Your task to perform on an android device: add a contact in the contacts app Image 0: 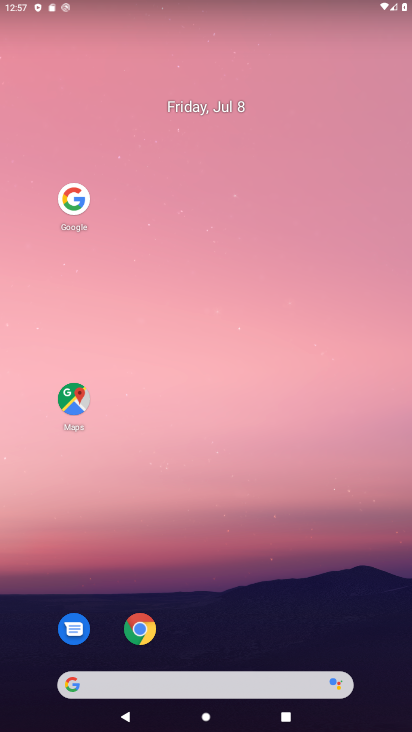
Step 0: click (202, 191)
Your task to perform on an android device: add a contact in the contacts app Image 1: 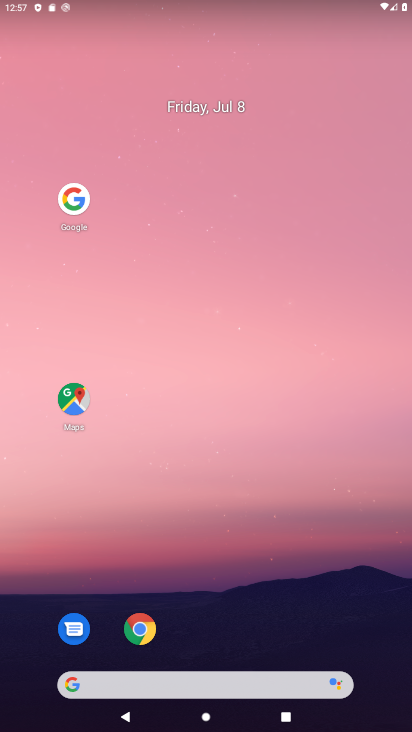
Step 1: drag from (238, 480) to (187, 52)
Your task to perform on an android device: add a contact in the contacts app Image 2: 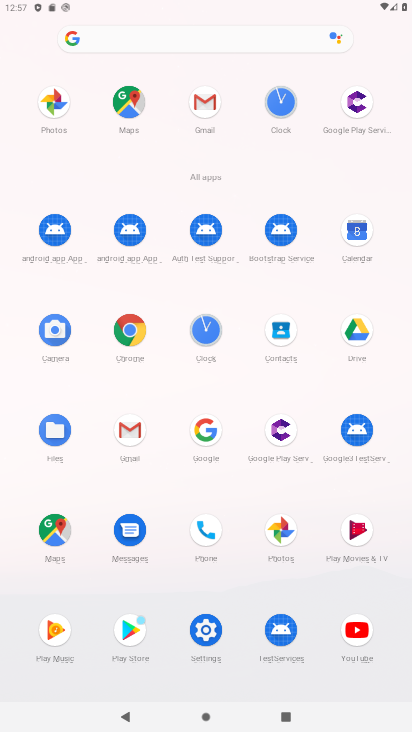
Step 2: click (279, 326)
Your task to perform on an android device: add a contact in the contacts app Image 3: 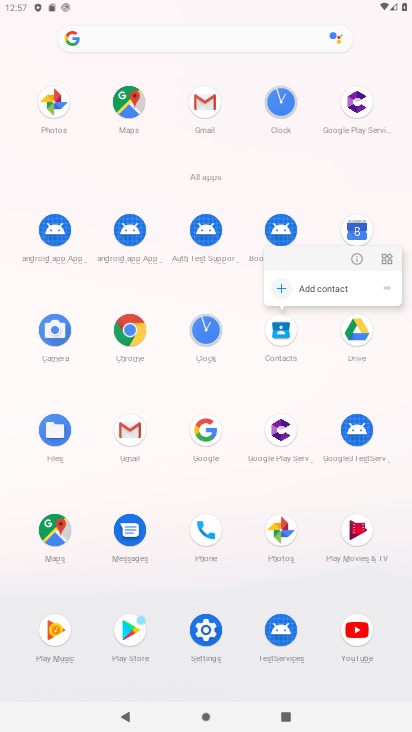
Step 3: click (280, 329)
Your task to perform on an android device: add a contact in the contacts app Image 4: 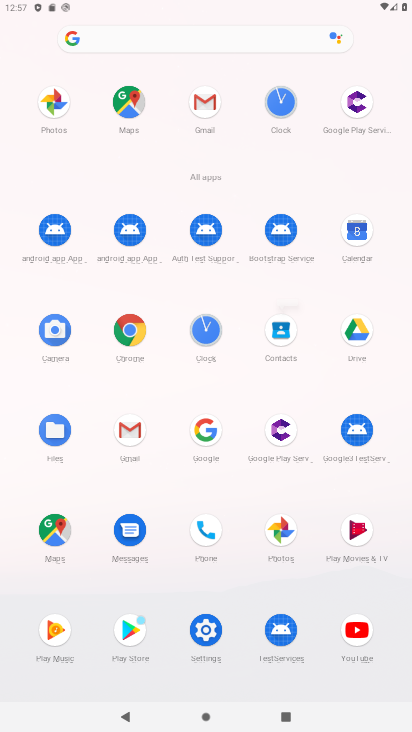
Step 4: click (273, 332)
Your task to perform on an android device: add a contact in the contacts app Image 5: 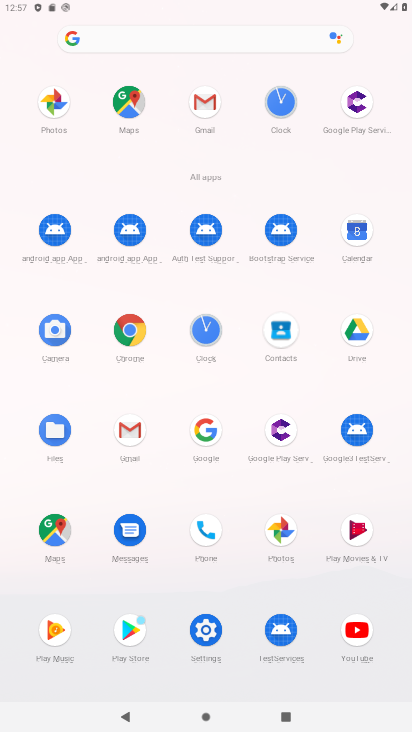
Step 5: click (273, 333)
Your task to perform on an android device: add a contact in the contacts app Image 6: 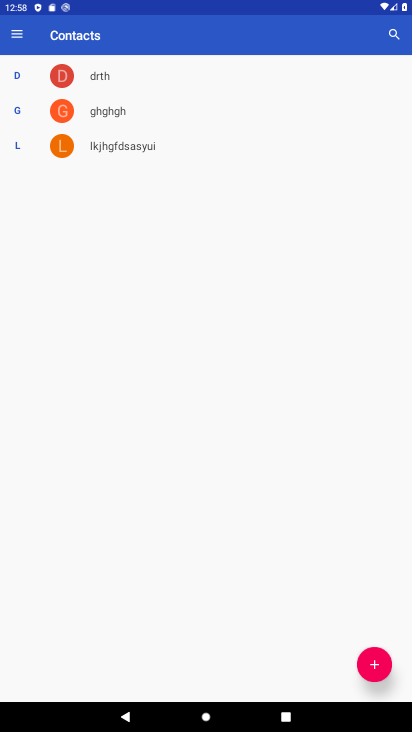
Step 6: click (205, 340)
Your task to perform on an android device: add a contact in the contacts app Image 7: 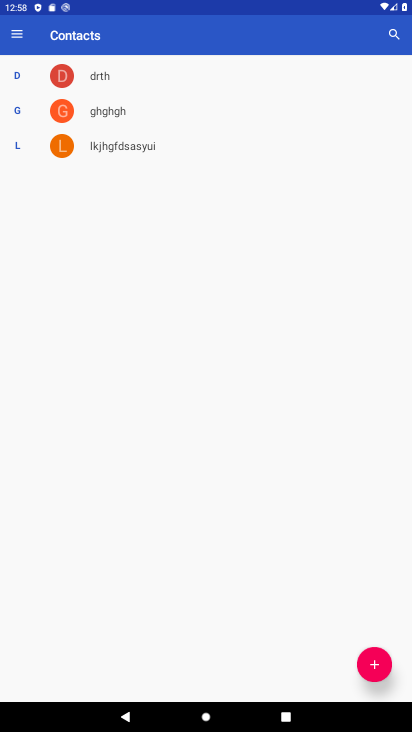
Step 7: click (207, 334)
Your task to perform on an android device: add a contact in the contacts app Image 8: 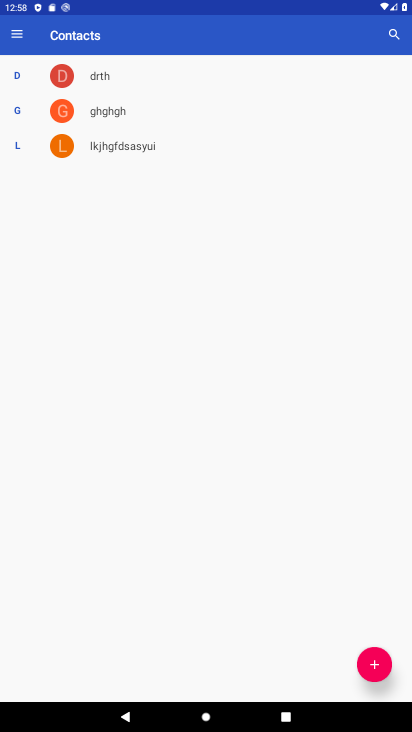
Step 8: click (373, 663)
Your task to perform on an android device: add a contact in the contacts app Image 9: 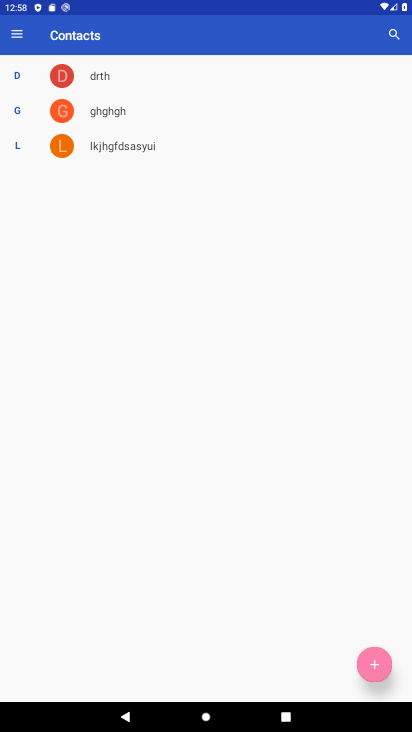
Step 9: click (373, 663)
Your task to perform on an android device: add a contact in the contacts app Image 10: 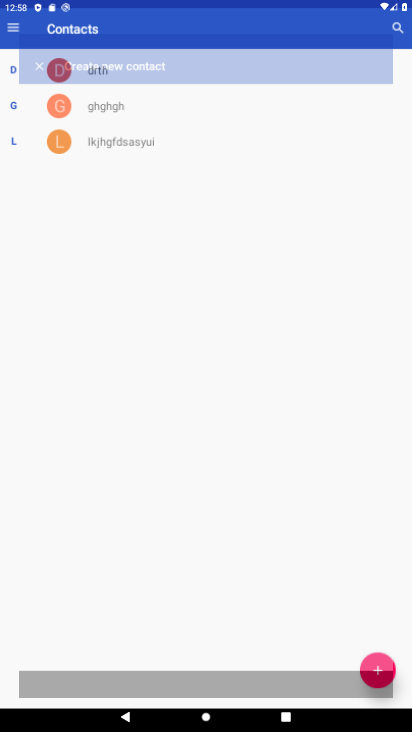
Step 10: click (374, 662)
Your task to perform on an android device: add a contact in the contacts app Image 11: 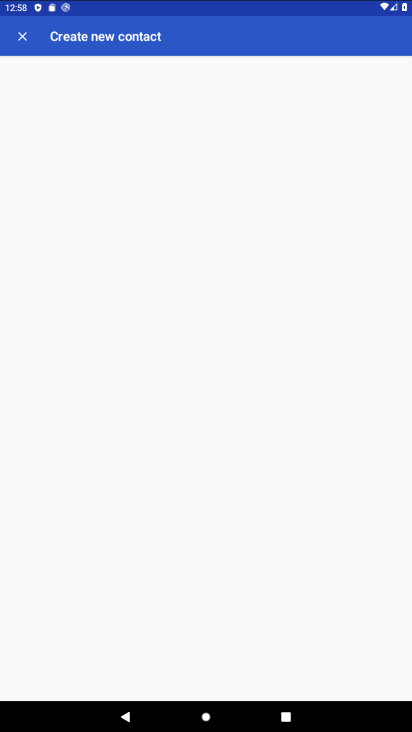
Step 11: click (375, 662)
Your task to perform on an android device: add a contact in the contacts app Image 12: 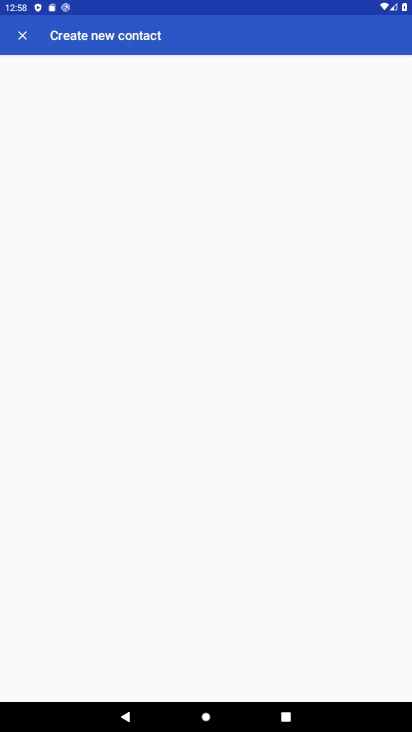
Step 12: click (376, 663)
Your task to perform on an android device: add a contact in the contacts app Image 13: 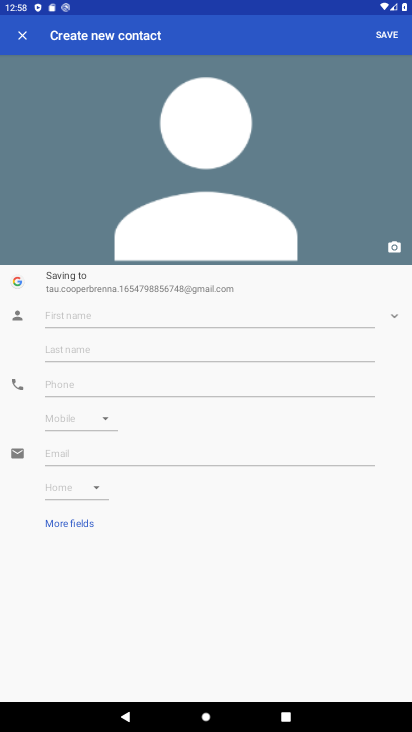
Step 13: click (65, 310)
Your task to perform on an android device: add a contact in the contacts app Image 14: 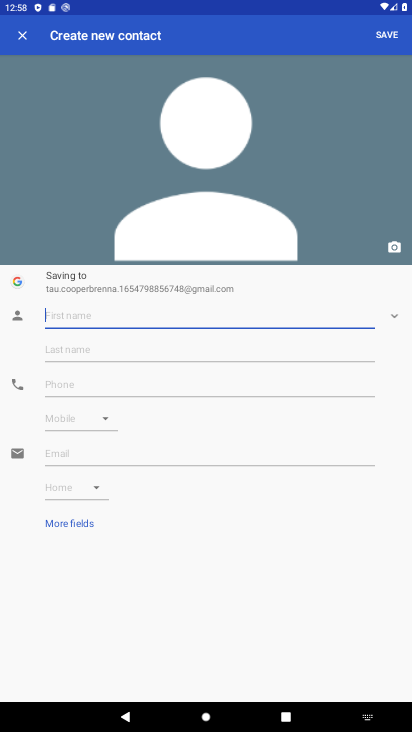
Step 14: click (63, 315)
Your task to perform on an android device: add a contact in the contacts app Image 15: 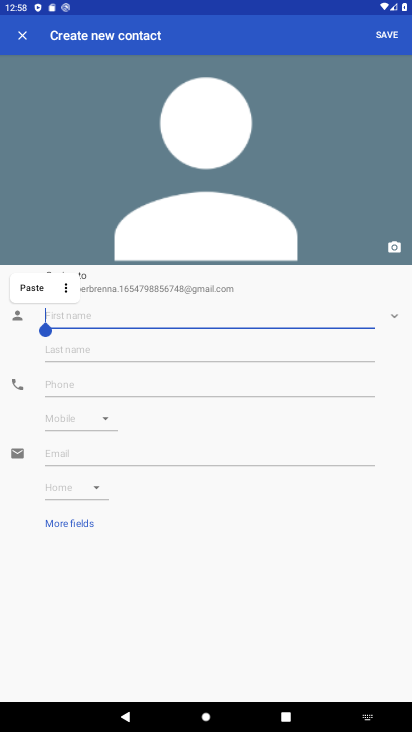
Step 15: type "jhsdbfjfsdbjk"
Your task to perform on an android device: add a contact in the contacts app Image 16: 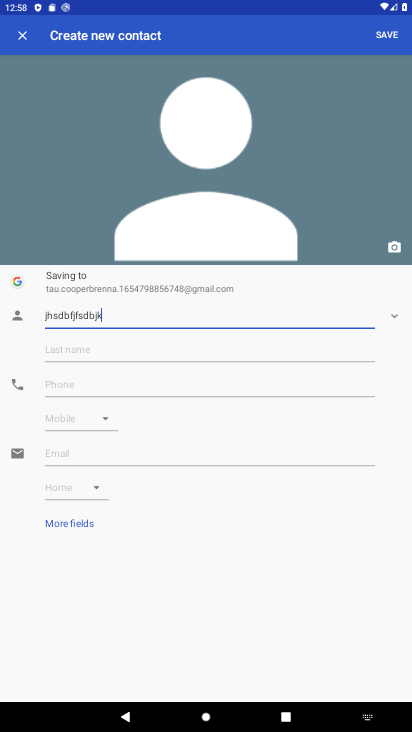
Step 16: click (57, 381)
Your task to perform on an android device: add a contact in the contacts app Image 17: 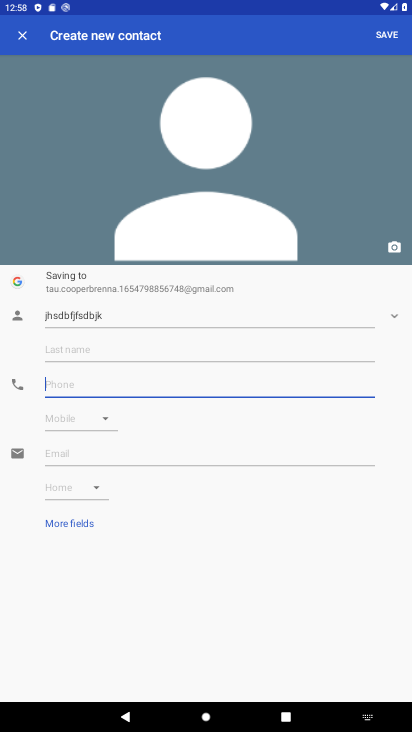
Step 17: click (57, 381)
Your task to perform on an android device: add a contact in the contacts app Image 18: 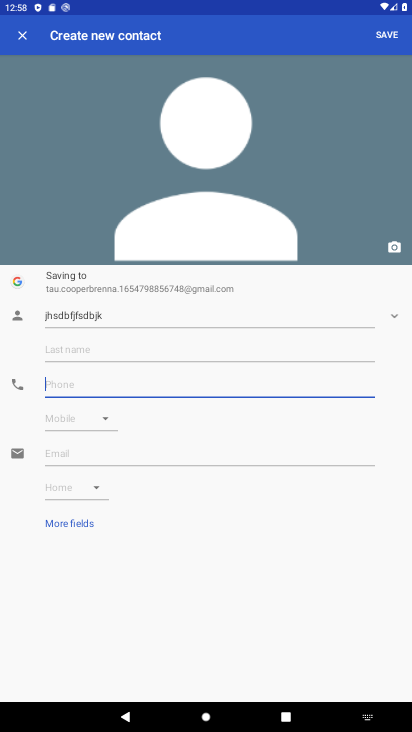
Step 18: click (57, 381)
Your task to perform on an android device: add a contact in the contacts app Image 19: 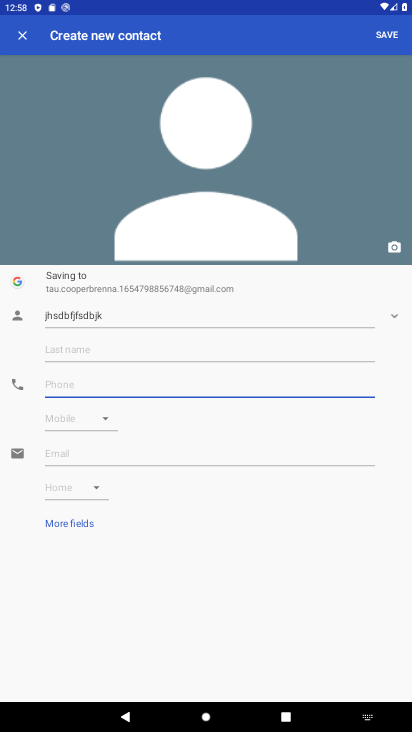
Step 19: click (57, 381)
Your task to perform on an android device: add a contact in the contacts app Image 20: 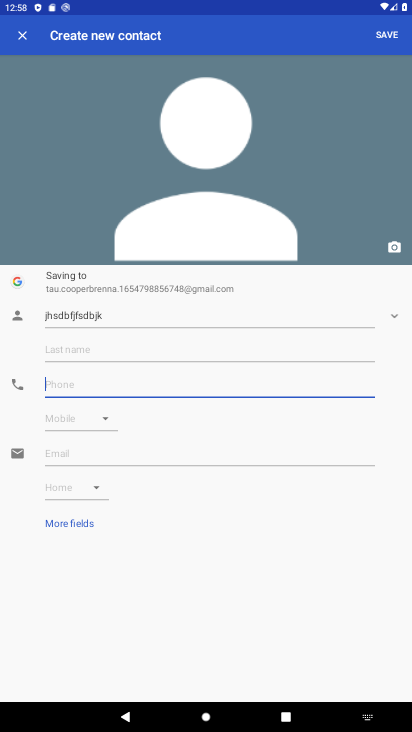
Step 20: type "4y3274897992"
Your task to perform on an android device: add a contact in the contacts app Image 21: 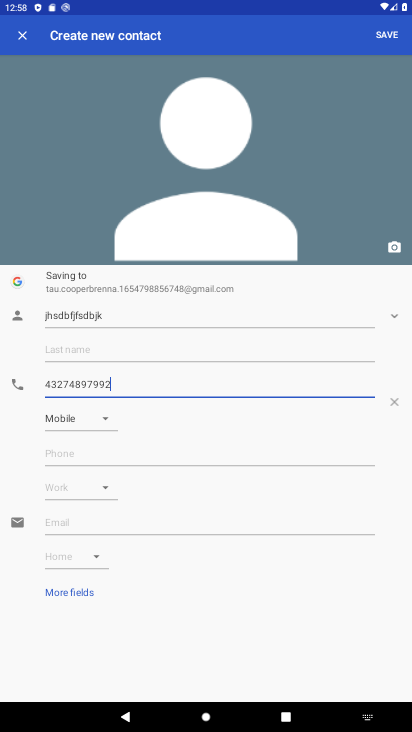
Step 21: click (378, 26)
Your task to perform on an android device: add a contact in the contacts app Image 22: 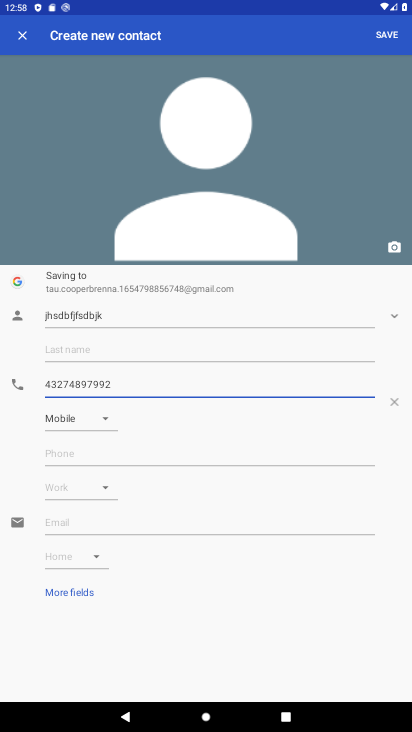
Step 22: click (377, 26)
Your task to perform on an android device: add a contact in the contacts app Image 23: 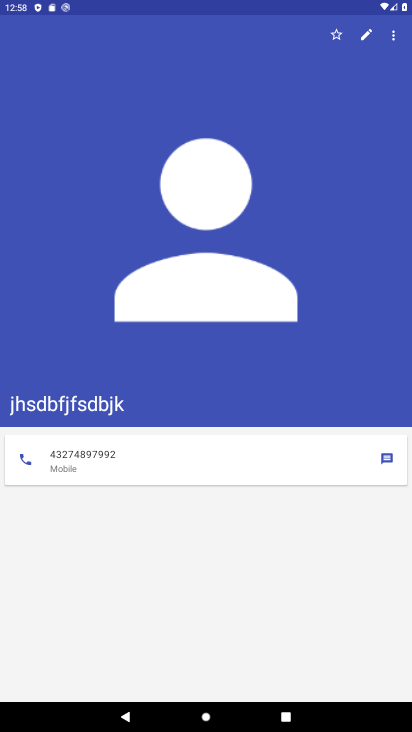
Step 23: task complete